Your task to perform on an android device: Open CNN.com Image 0: 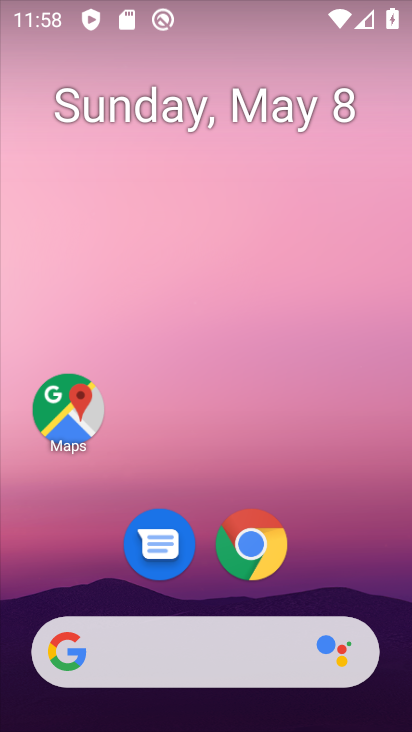
Step 0: click (275, 548)
Your task to perform on an android device: Open CNN.com Image 1: 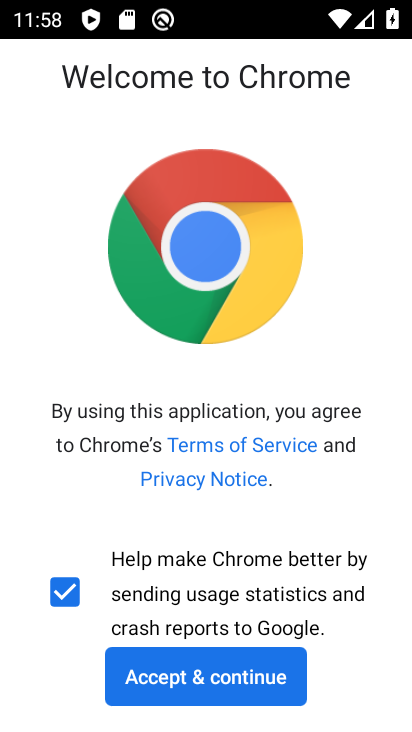
Step 1: click (224, 667)
Your task to perform on an android device: Open CNN.com Image 2: 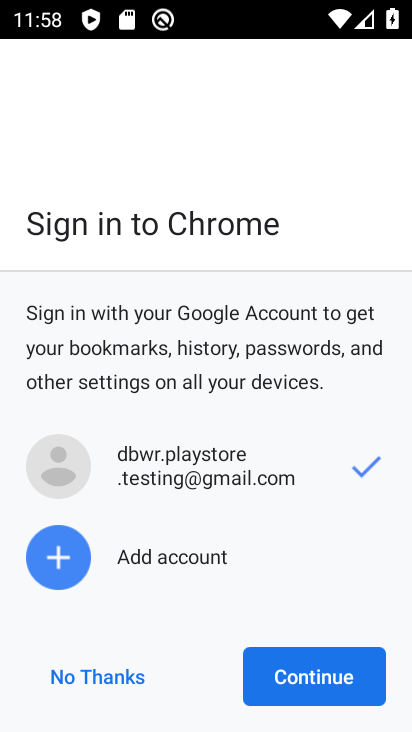
Step 2: click (91, 671)
Your task to perform on an android device: Open CNN.com Image 3: 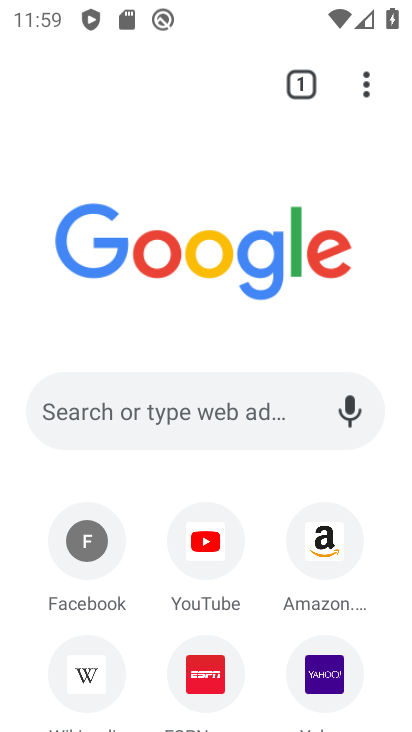
Step 3: drag from (257, 517) to (283, 271)
Your task to perform on an android device: Open CNN.com Image 4: 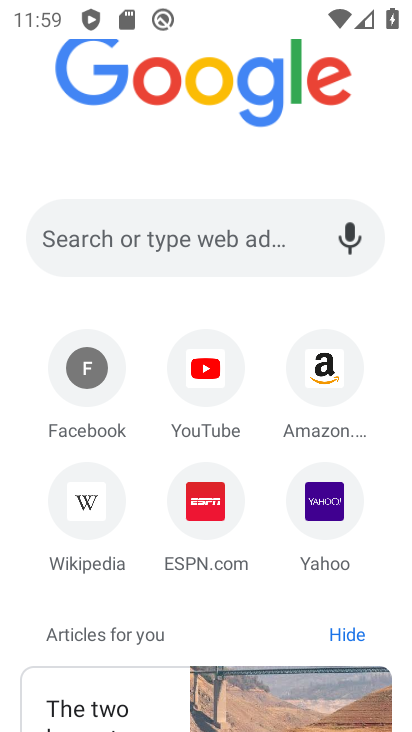
Step 4: click (191, 245)
Your task to perform on an android device: Open CNN.com Image 5: 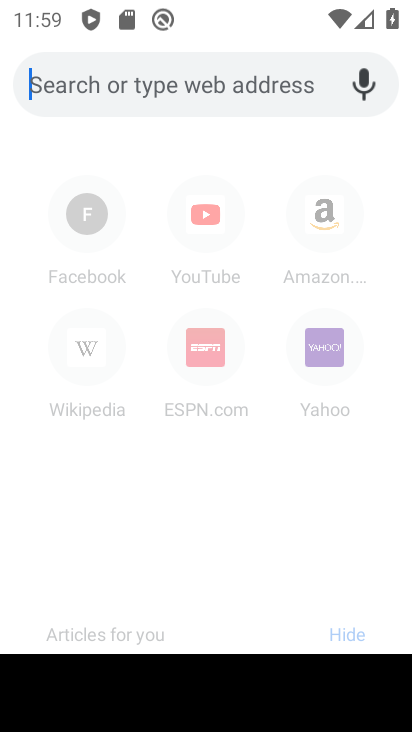
Step 5: type "cnn.com"
Your task to perform on an android device: Open CNN.com Image 6: 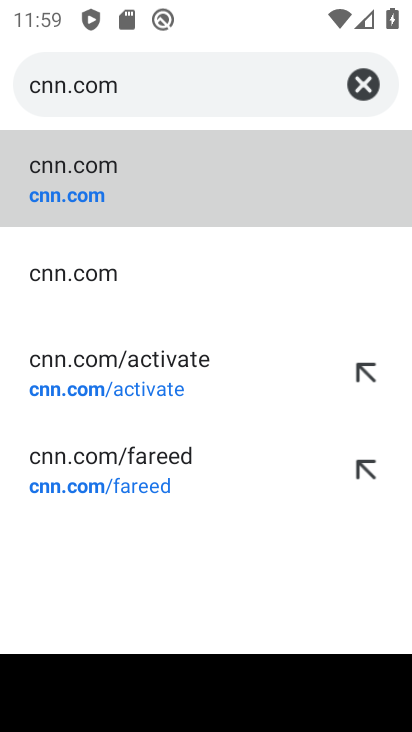
Step 6: click (95, 194)
Your task to perform on an android device: Open CNN.com Image 7: 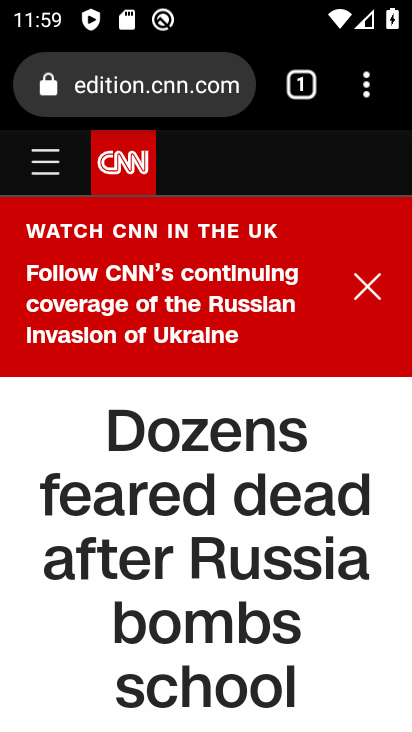
Step 7: task complete